Your task to perform on an android device: check data usage Image 0: 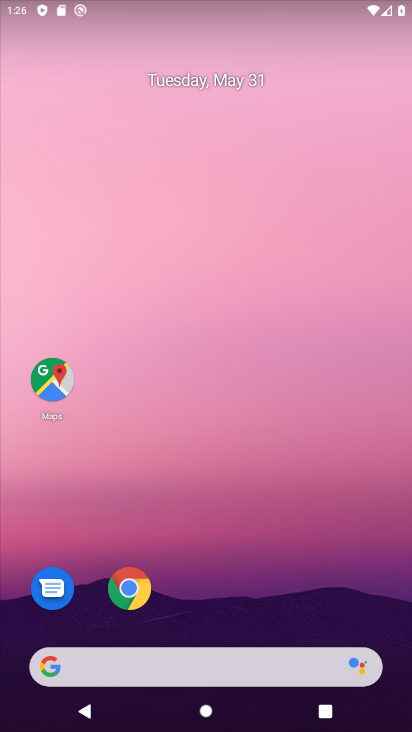
Step 0: drag from (329, 617) to (327, 229)
Your task to perform on an android device: check data usage Image 1: 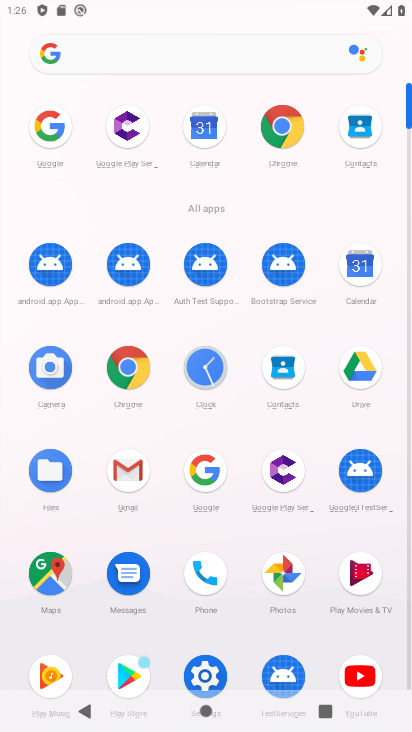
Step 1: click (215, 673)
Your task to perform on an android device: check data usage Image 2: 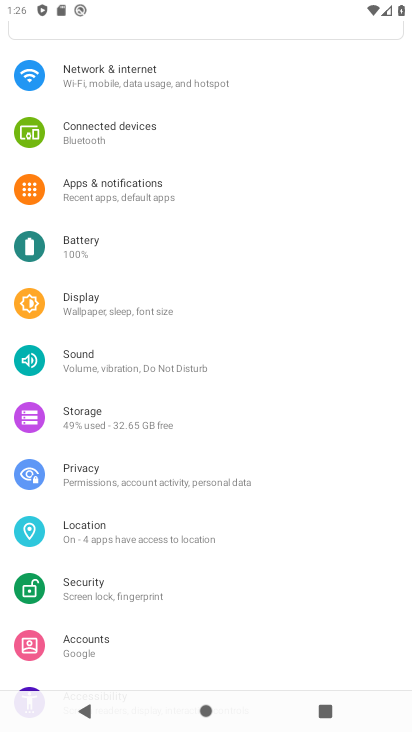
Step 2: drag from (321, 316) to (320, 392)
Your task to perform on an android device: check data usage Image 3: 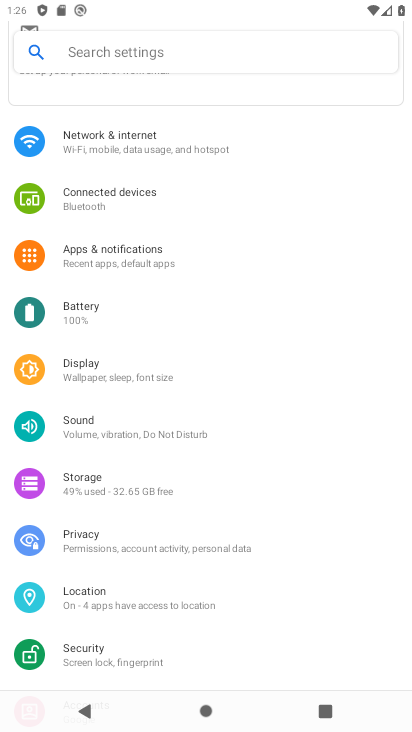
Step 3: drag from (324, 287) to (319, 380)
Your task to perform on an android device: check data usage Image 4: 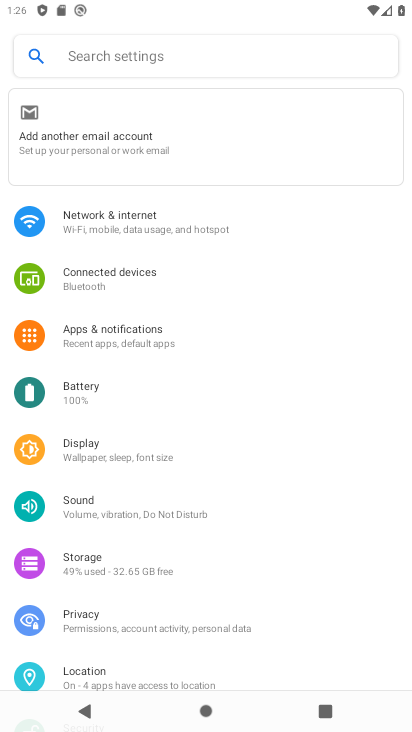
Step 4: drag from (306, 283) to (328, 396)
Your task to perform on an android device: check data usage Image 5: 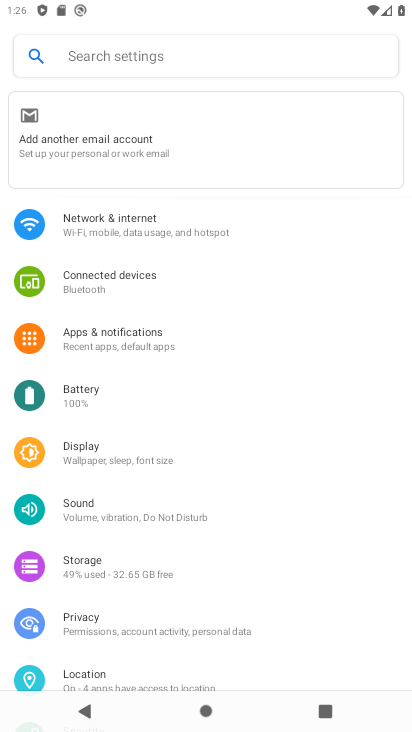
Step 5: click (247, 238)
Your task to perform on an android device: check data usage Image 6: 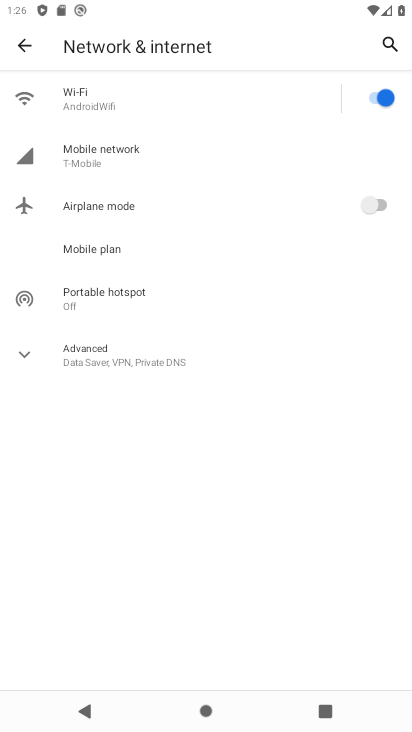
Step 6: click (108, 153)
Your task to perform on an android device: check data usage Image 7: 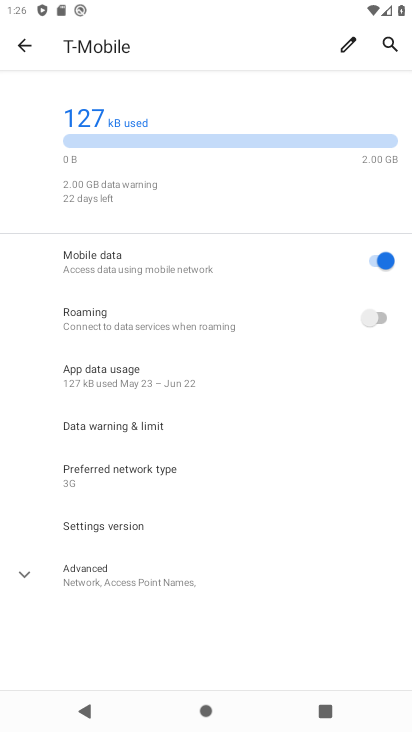
Step 7: click (216, 384)
Your task to perform on an android device: check data usage Image 8: 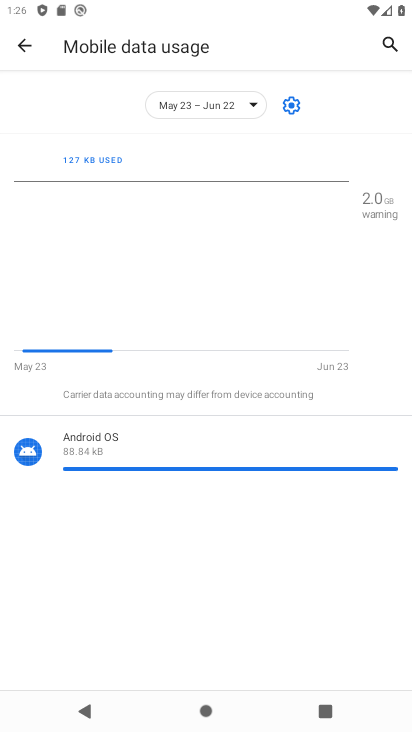
Step 8: task complete